Your task to perform on an android device: Open Chrome and go to settings Image 0: 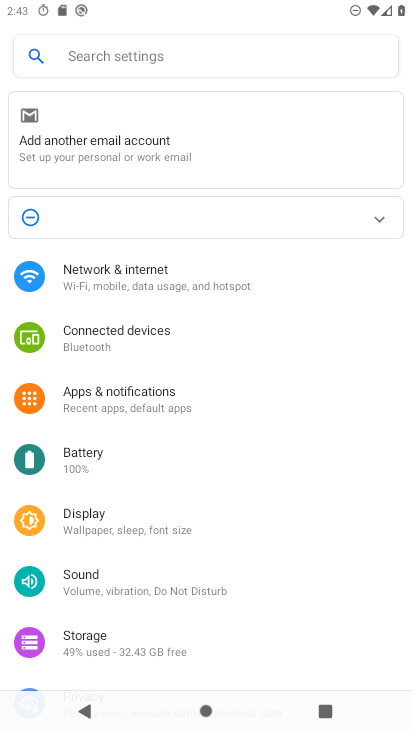
Step 0: press home button
Your task to perform on an android device: Open Chrome and go to settings Image 1: 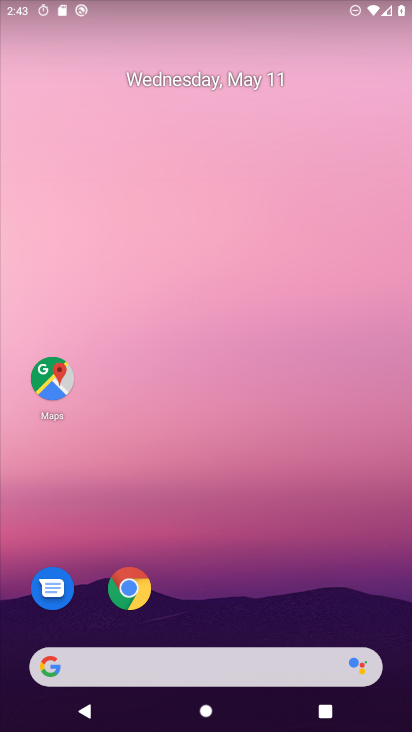
Step 1: drag from (312, 131) to (312, 87)
Your task to perform on an android device: Open Chrome and go to settings Image 2: 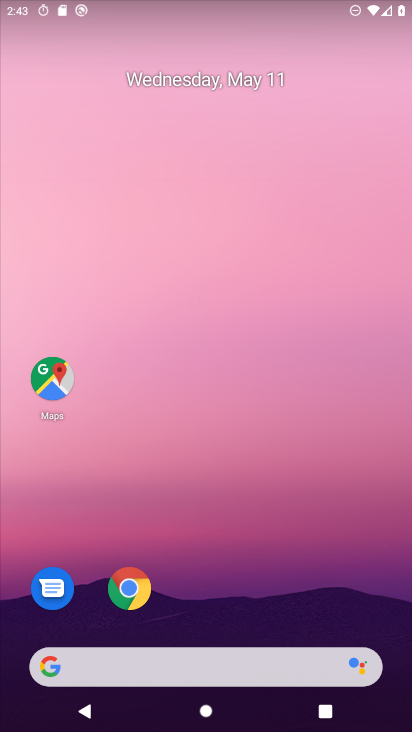
Step 2: drag from (261, 613) to (260, 12)
Your task to perform on an android device: Open Chrome and go to settings Image 3: 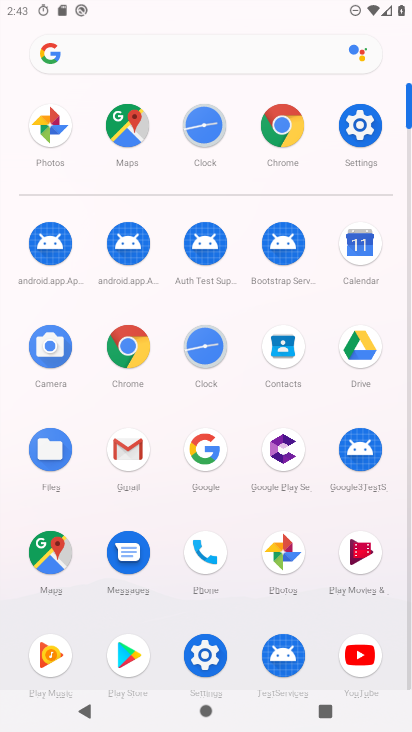
Step 3: click (133, 341)
Your task to perform on an android device: Open Chrome and go to settings Image 4: 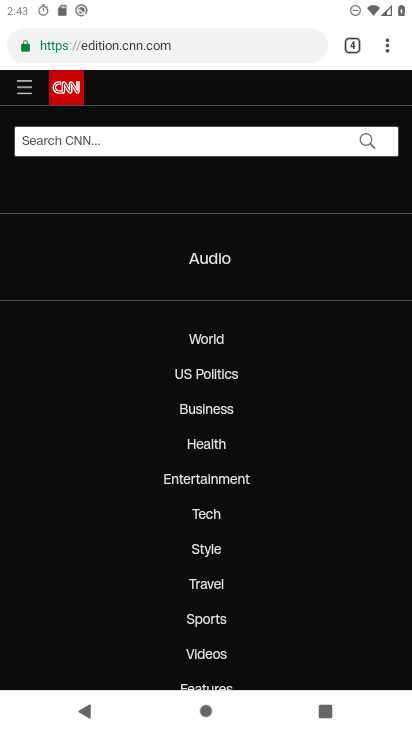
Step 4: task complete